Your task to perform on an android device: toggle show notifications on the lock screen Image 0: 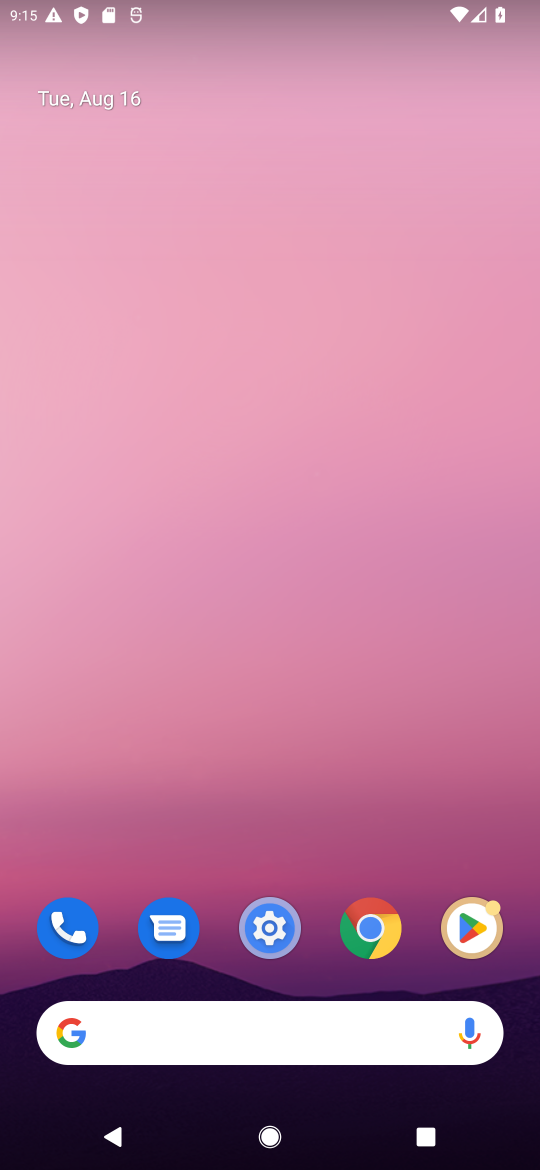
Step 0: press home button
Your task to perform on an android device: toggle show notifications on the lock screen Image 1: 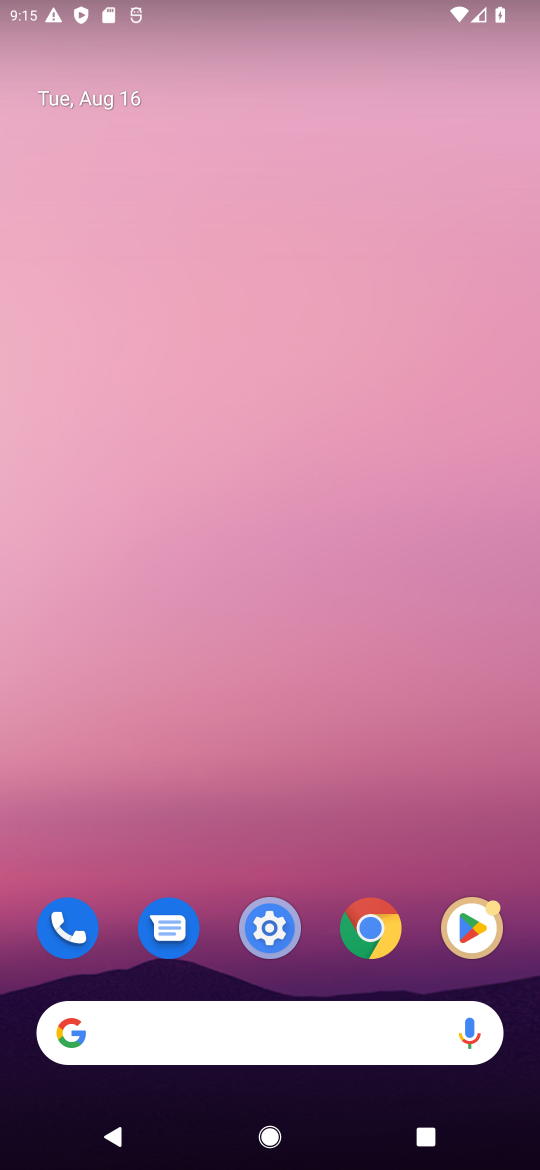
Step 1: drag from (296, 828) to (297, 169)
Your task to perform on an android device: toggle show notifications on the lock screen Image 2: 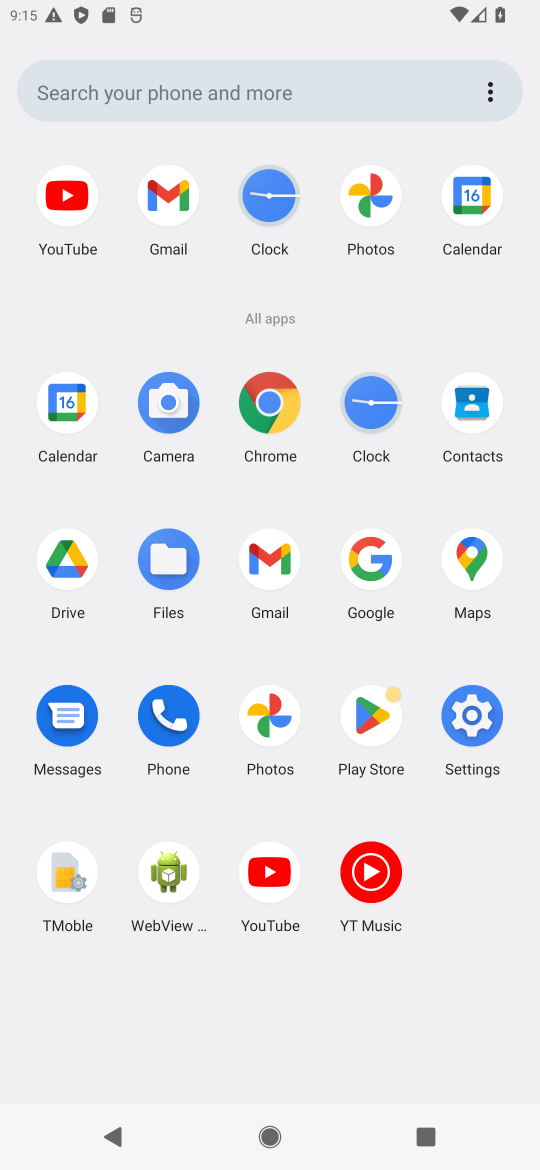
Step 2: click (484, 710)
Your task to perform on an android device: toggle show notifications on the lock screen Image 3: 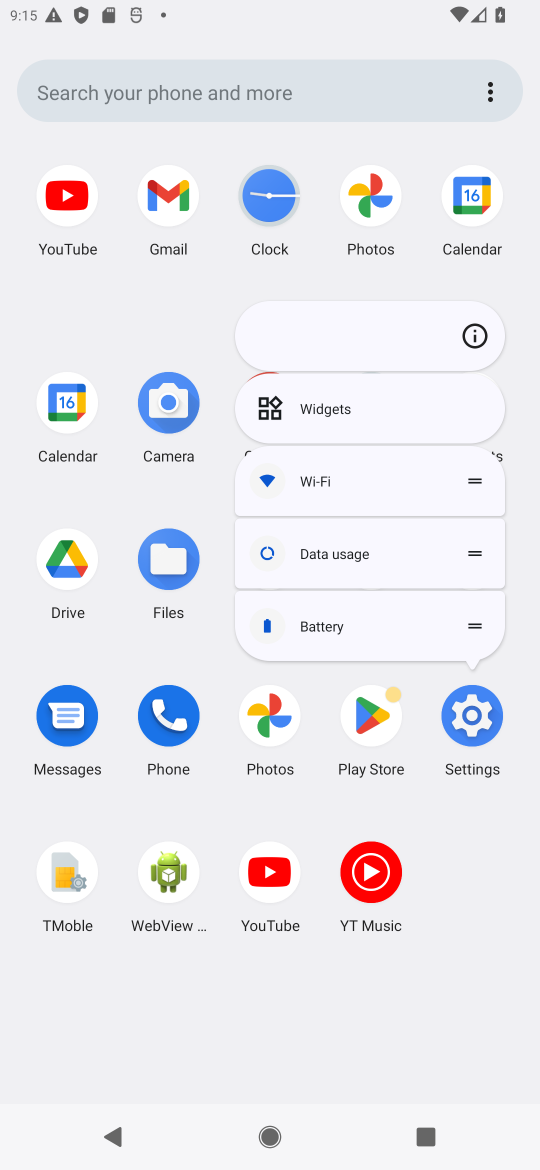
Step 3: click (484, 710)
Your task to perform on an android device: toggle show notifications on the lock screen Image 4: 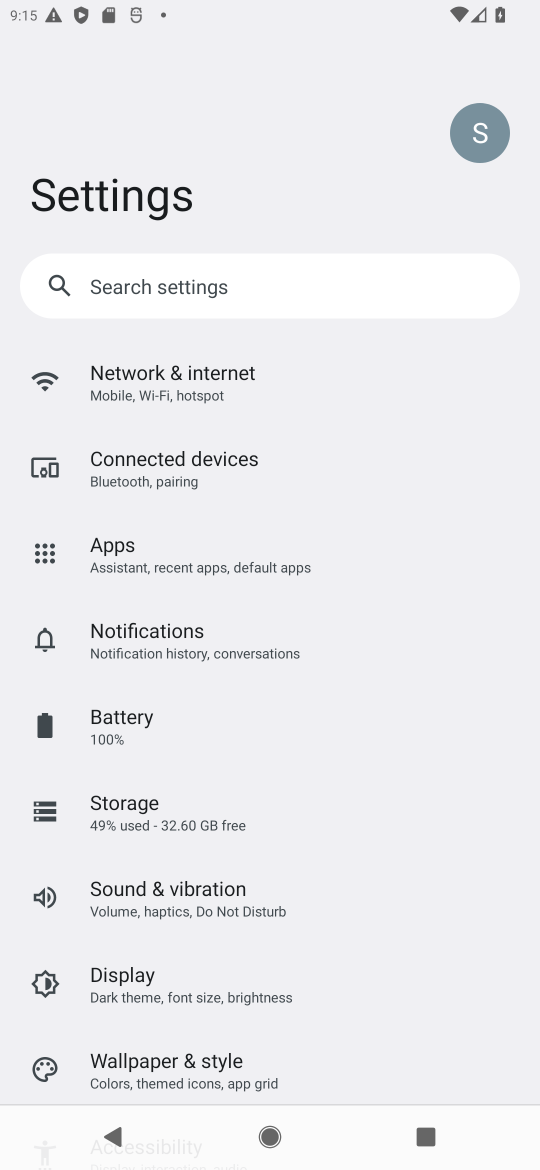
Step 4: click (204, 631)
Your task to perform on an android device: toggle show notifications on the lock screen Image 5: 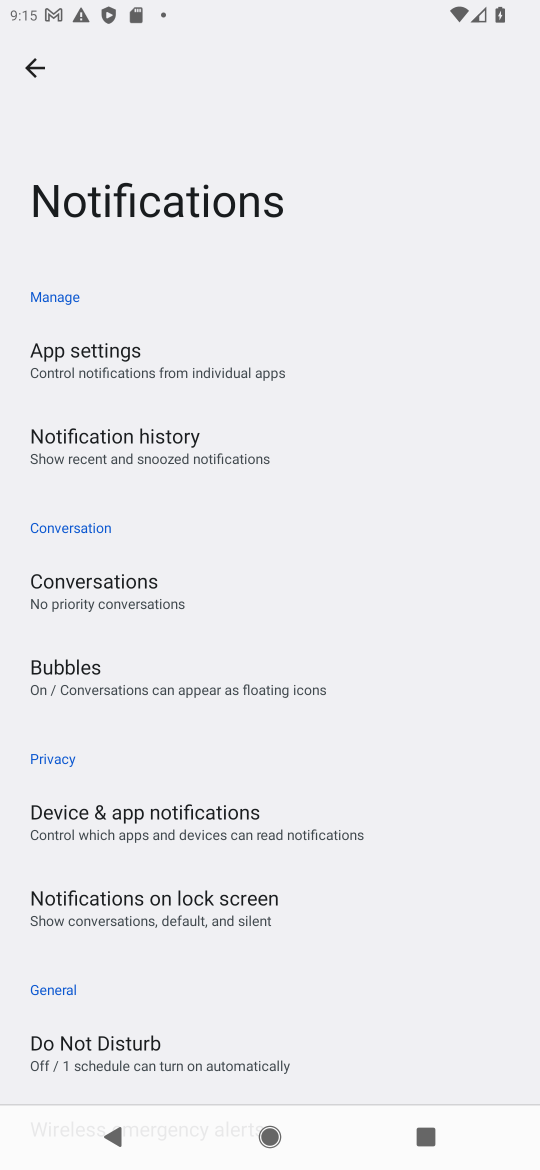
Step 5: click (167, 920)
Your task to perform on an android device: toggle show notifications on the lock screen Image 6: 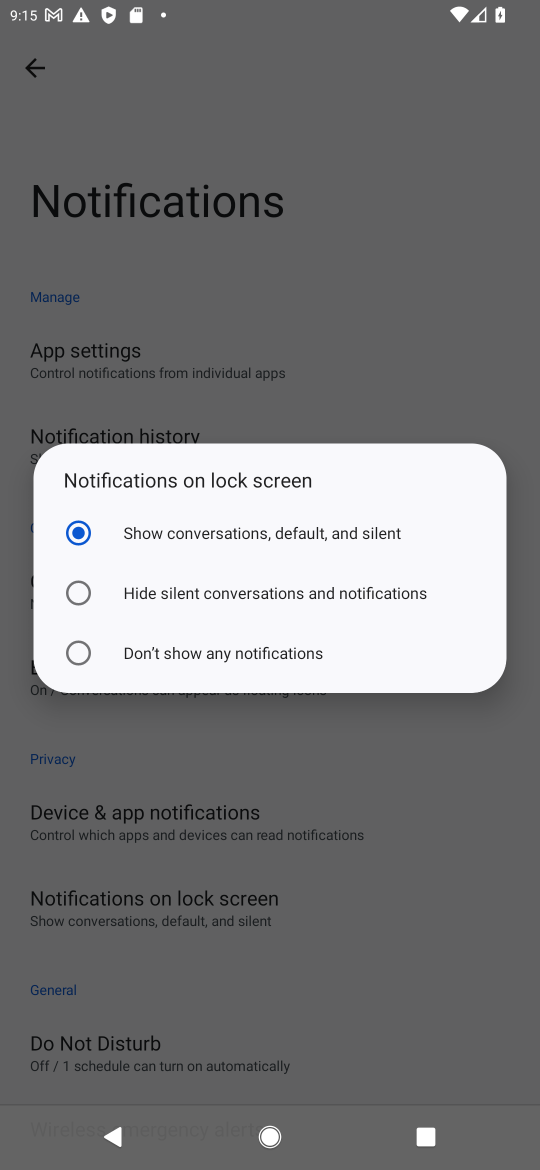
Step 6: click (71, 646)
Your task to perform on an android device: toggle show notifications on the lock screen Image 7: 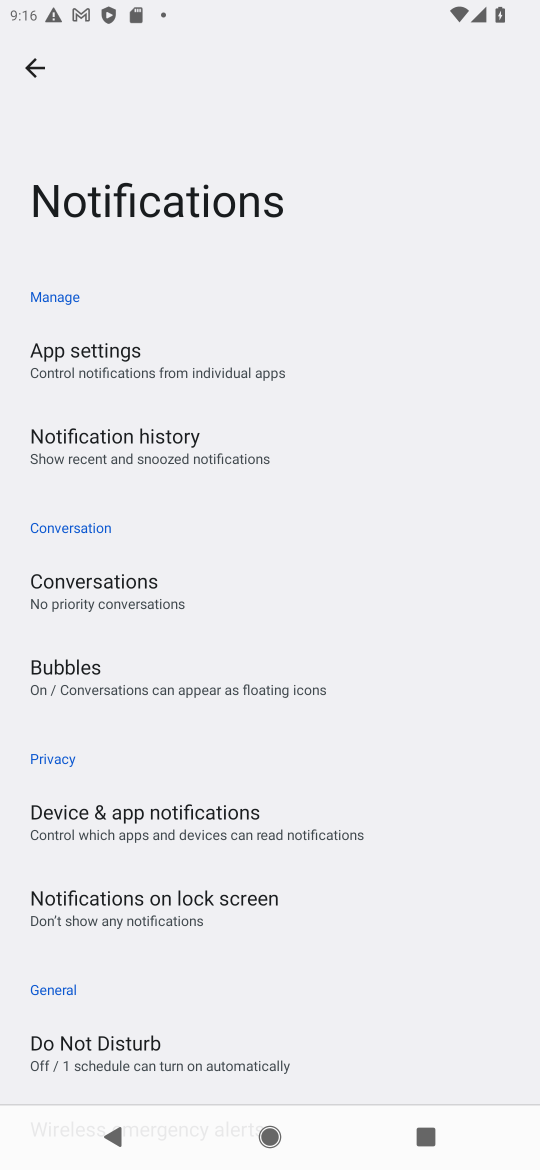
Step 7: task complete